Your task to perform on an android device: turn on priority inbox in the gmail app Image 0: 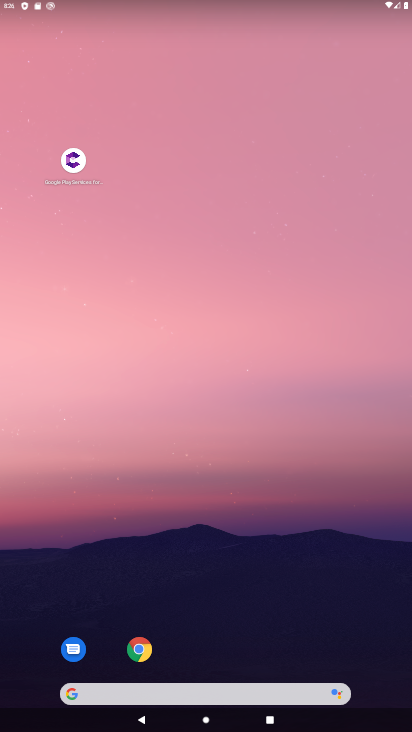
Step 0: drag from (227, 640) to (273, 34)
Your task to perform on an android device: turn on priority inbox in the gmail app Image 1: 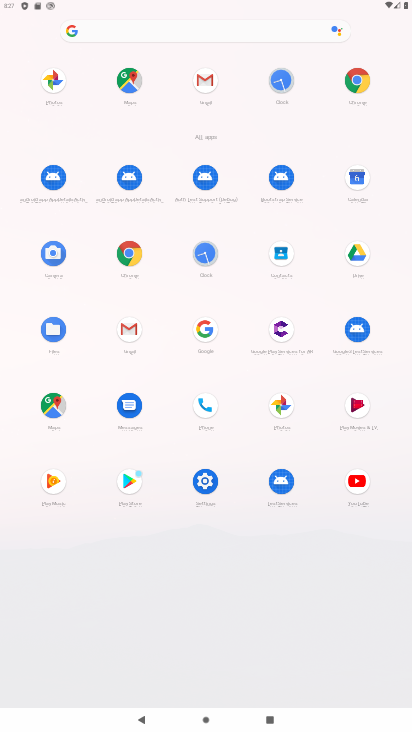
Step 1: click (202, 78)
Your task to perform on an android device: turn on priority inbox in the gmail app Image 2: 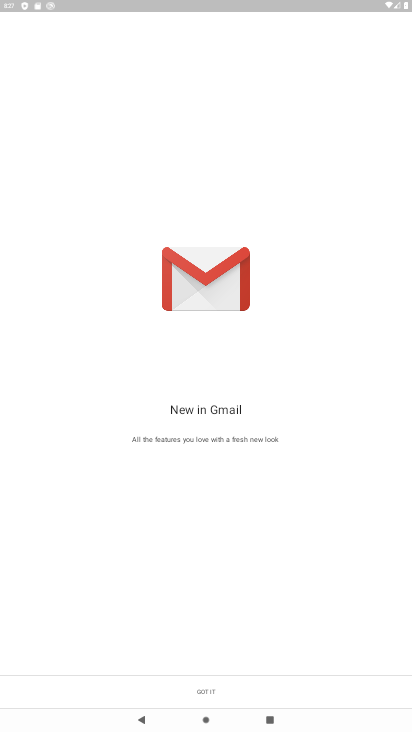
Step 2: click (206, 684)
Your task to perform on an android device: turn on priority inbox in the gmail app Image 3: 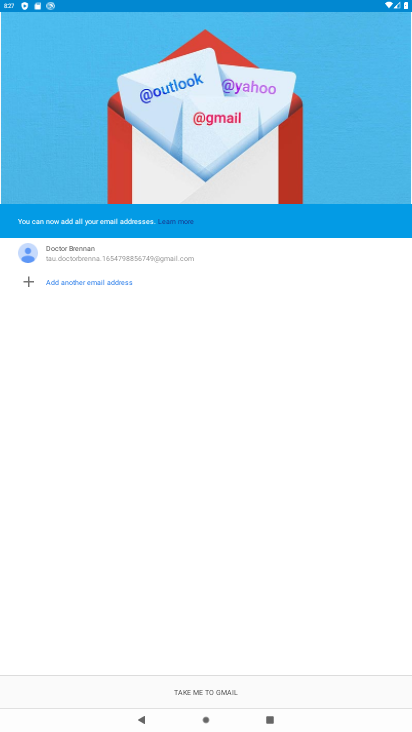
Step 3: click (207, 684)
Your task to perform on an android device: turn on priority inbox in the gmail app Image 4: 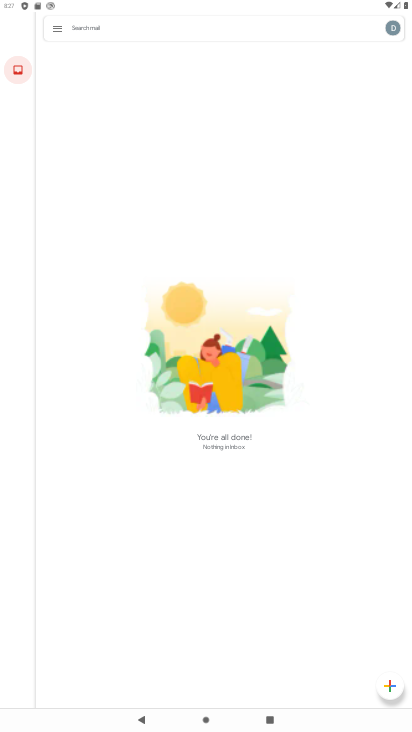
Step 4: click (56, 25)
Your task to perform on an android device: turn on priority inbox in the gmail app Image 5: 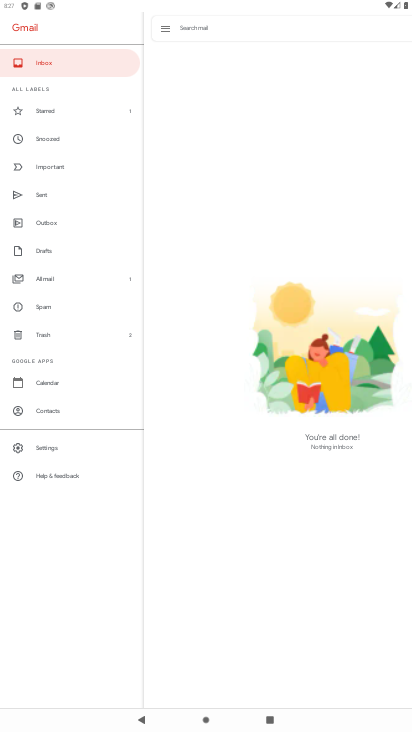
Step 5: click (39, 441)
Your task to perform on an android device: turn on priority inbox in the gmail app Image 6: 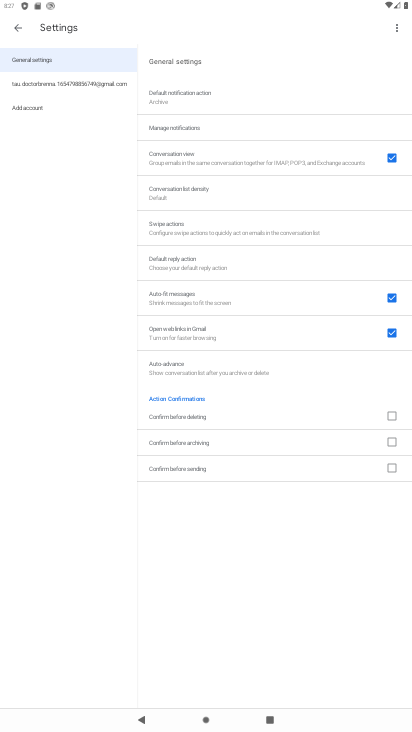
Step 6: click (61, 80)
Your task to perform on an android device: turn on priority inbox in the gmail app Image 7: 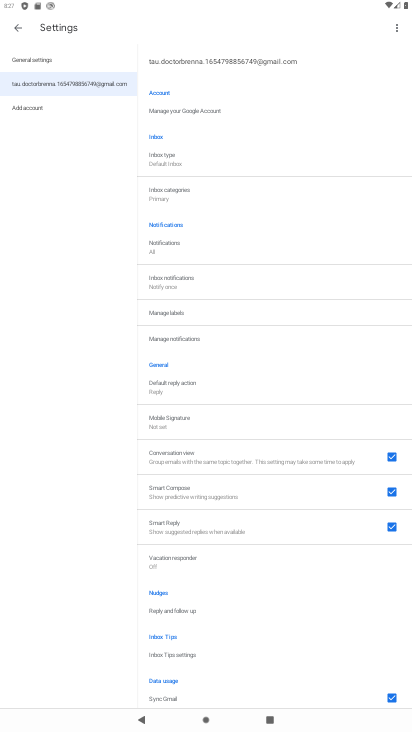
Step 7: click (176, 155)
Your task to perform on an android device: turn on priority inbox in the gmail app Image 8: 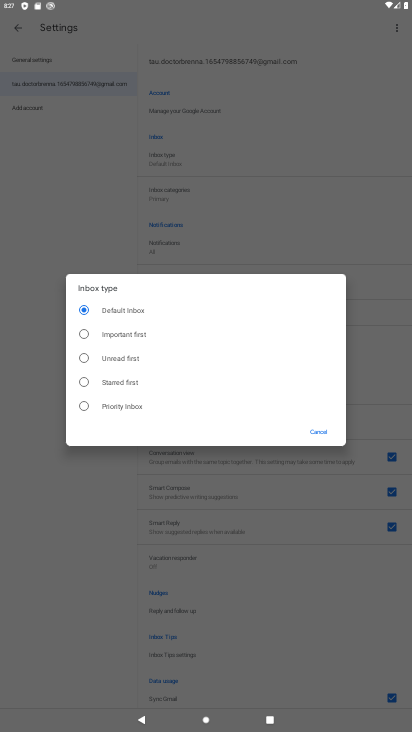
Step 8: click (86, 406)
Your task to perform on an android device: turn on priority inbox in the gmail app Image 9: 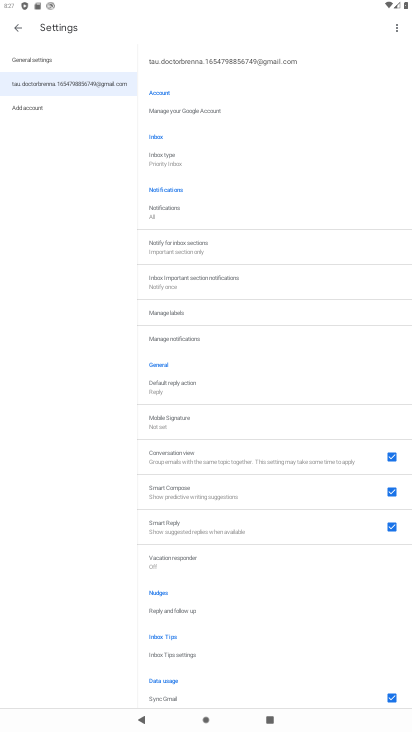
Step 9: task complete